Your task to perform on an android device: Open Google Chrome and click the shortcut for Amazon.com Image 0: 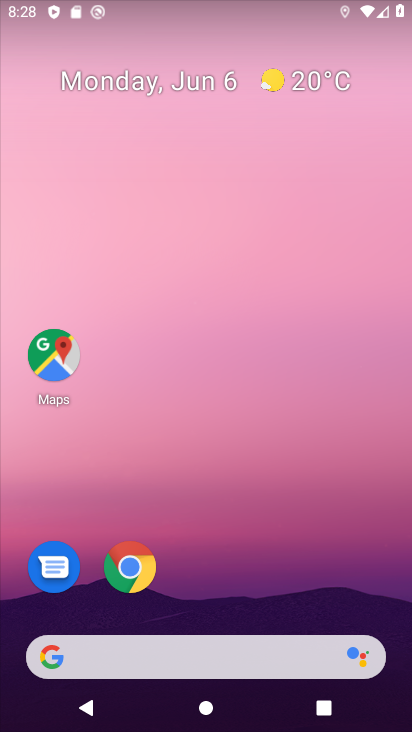
Step 0: click (136, 570)
Your task to perform on an android device: Open Google Chrome and click the shortcut for Amazon.com Image 1: 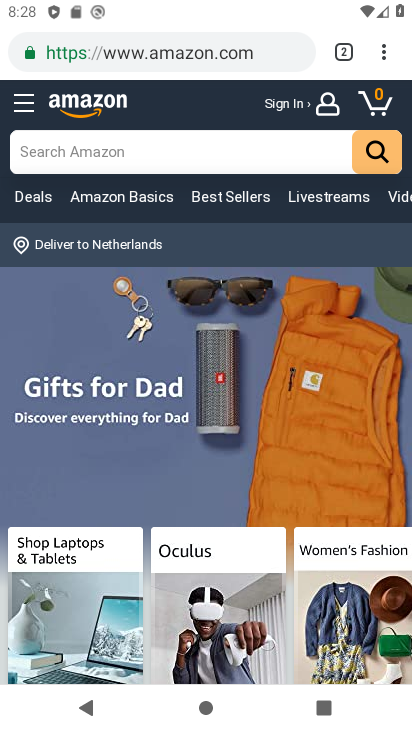
Step 1: task complete